Your task to perform on an android device: star an email in the gmail app Image 0: 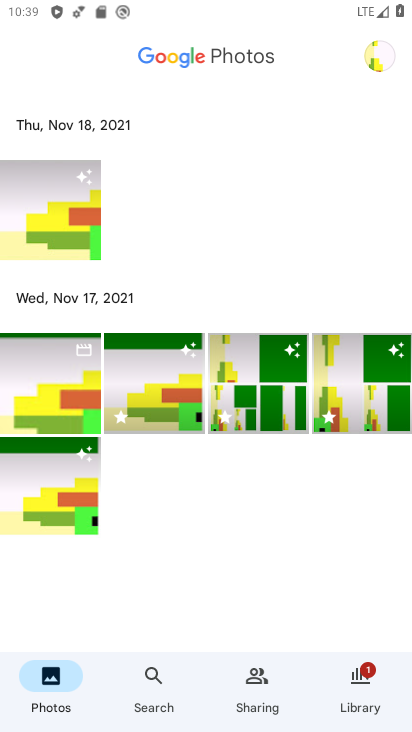
Step 0: press home button
Your task to perform on an android device: star an email in the gmail app Image 1: 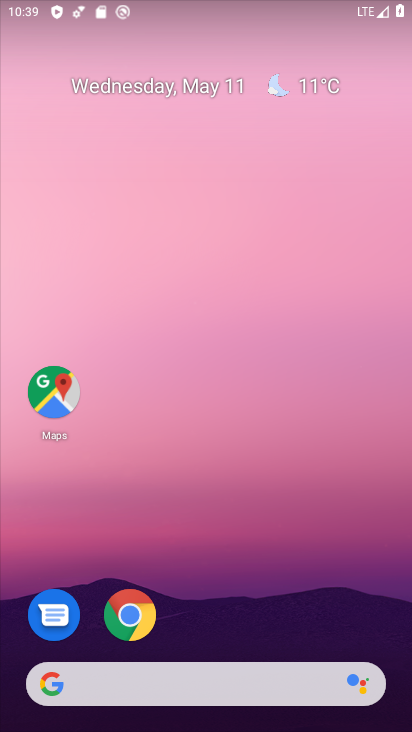
Step 1: drag from (252, 621) to (253, 119)
Your task to perform on an android device: star an email in the gmail app Image 2: 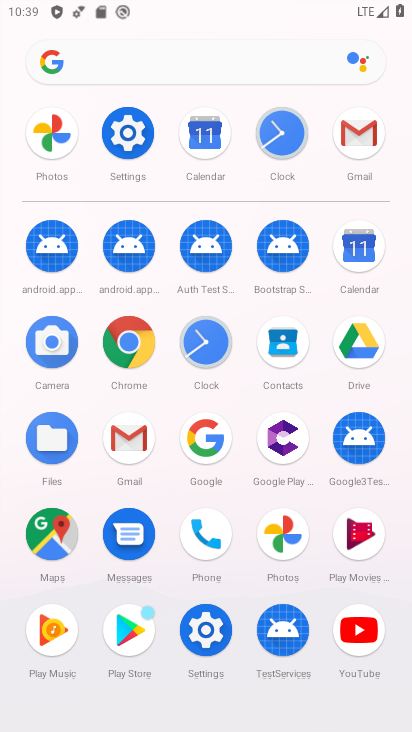
Step 2: click (138, 444)
Your task to perform on an android device: star an email in the gmail app Image 3: 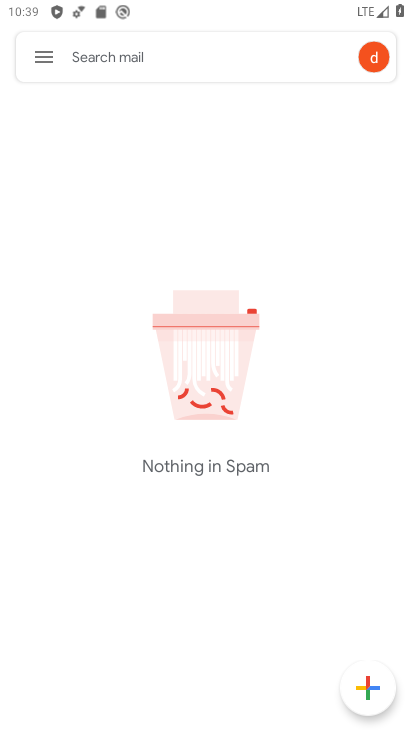
Step 3: click (44, 57)
Your task to perform on an android device: star an email in the gmail app Image 4: 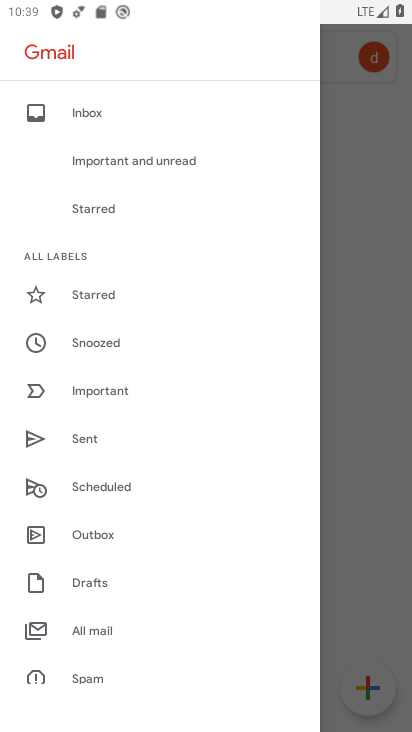
Step 4: click (113, 629)
Your task to perform on an android device: star an email in the gmail app Image 5: 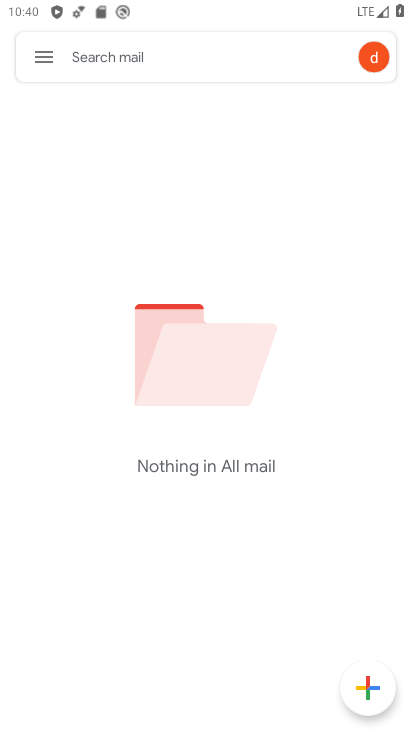
Step 5: task complete